Your task to perform on an android device: Search for "razer deathadder" on bestbuy.com, select the first entry, and add it to the cart. Image 0: 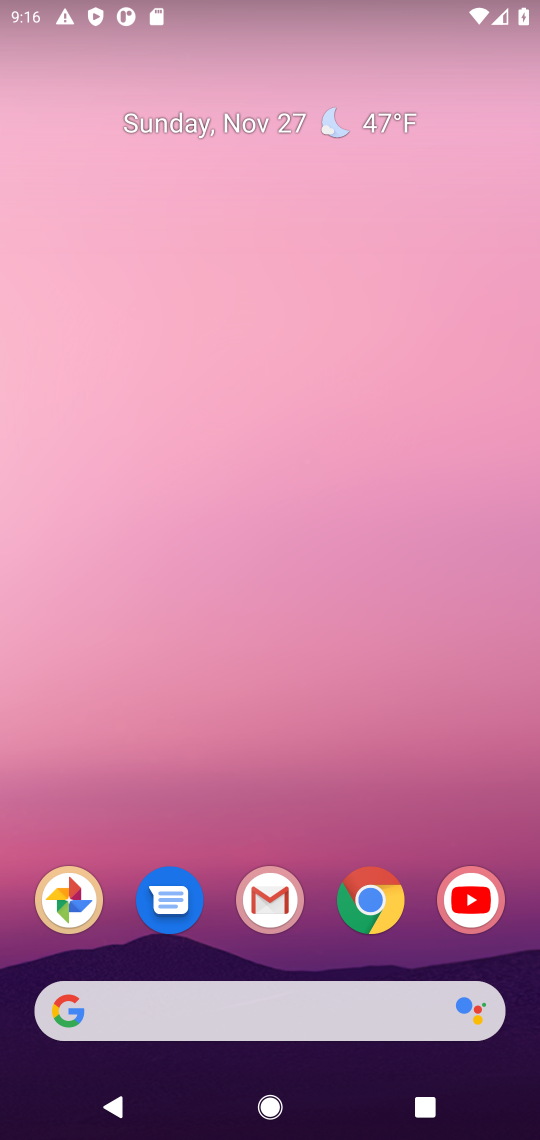
Step 0: click (378, 903)
Your task to perform on an android device: Search for "razer deathadder" on bestbuy.com, select the first entry, and add it to the cart. Image 1: 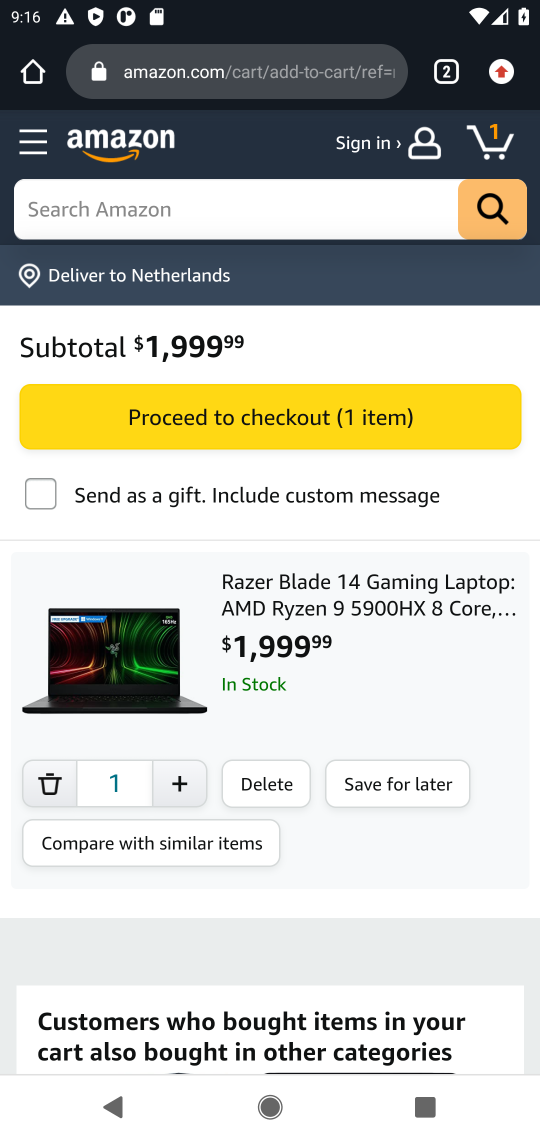
Step 1: click (242, 76)
Your task to perform on an android device: Search for "razer deathadder" on bestbuy.com, select the first entry, and add it to the cart. Image 2: 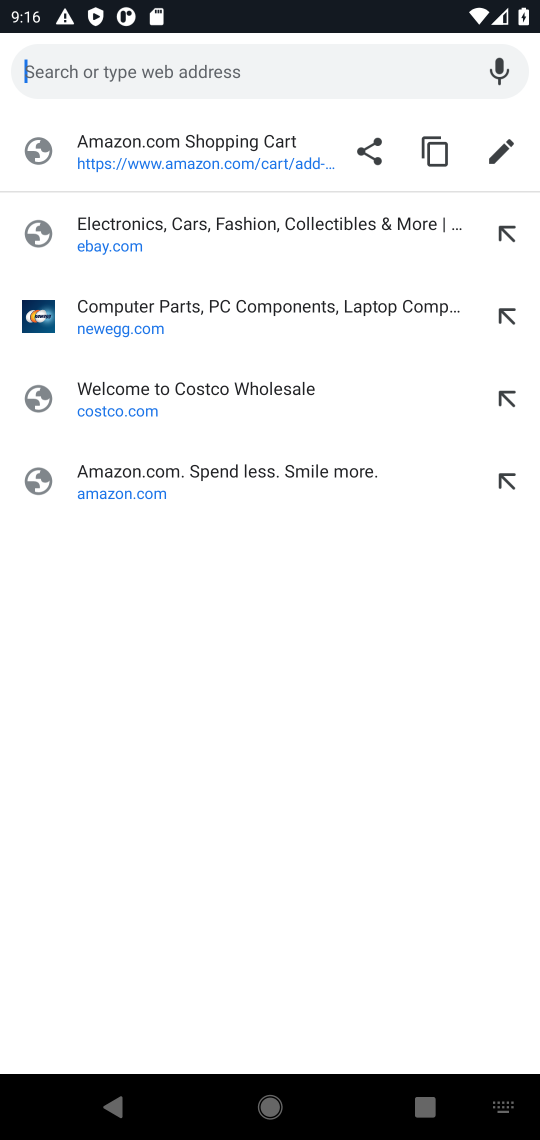
Step 2: type "bestbuy.com"
Your task to perform on an android device: Search for "razer deathadder" on bestbuy.com, select the first entry, and add it to the cart. Image 3: 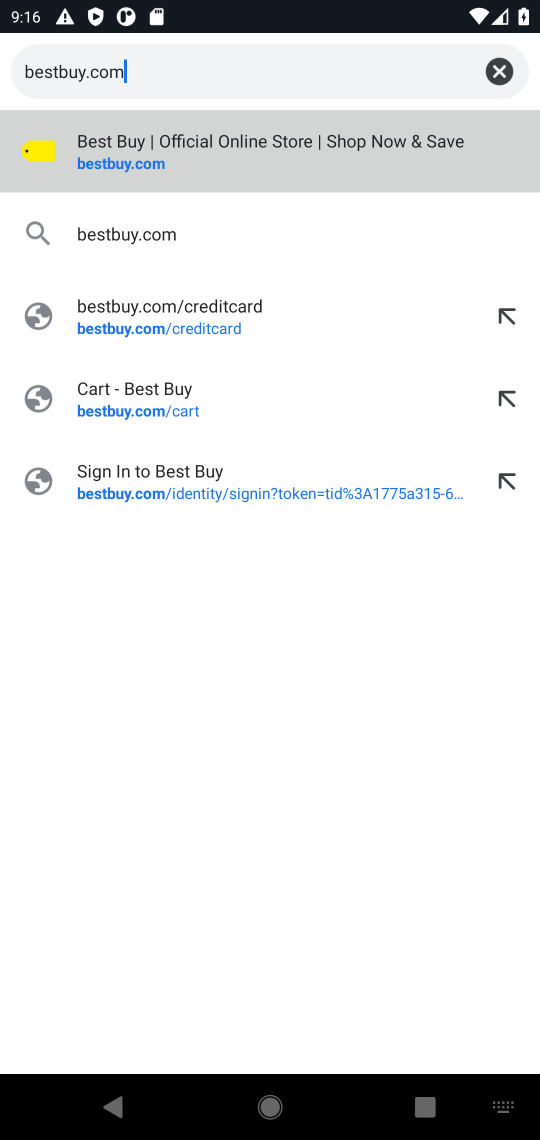
Step 3: click (109, 163)
Your task to perform on an android device: Search for "razer deathadder" on bestbuy.com, select the first entry, and add it to the cart. Image 4: 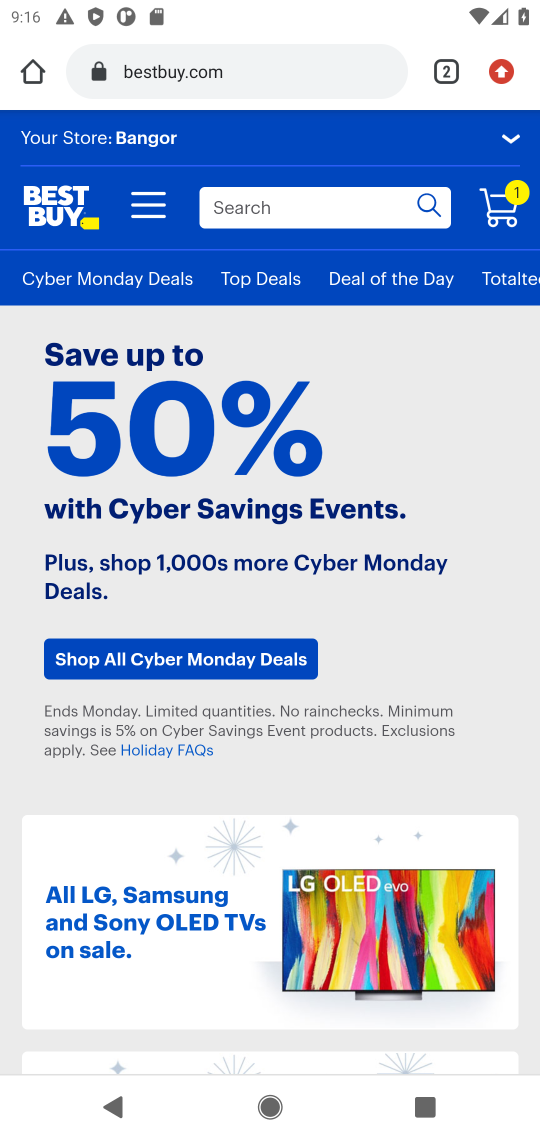
Step 4: click (295, 199)
Your task to perform on an android device: Search for "razer deathadder" on bestbuy.com, select the first entry, and add it to the cart. Image 5: 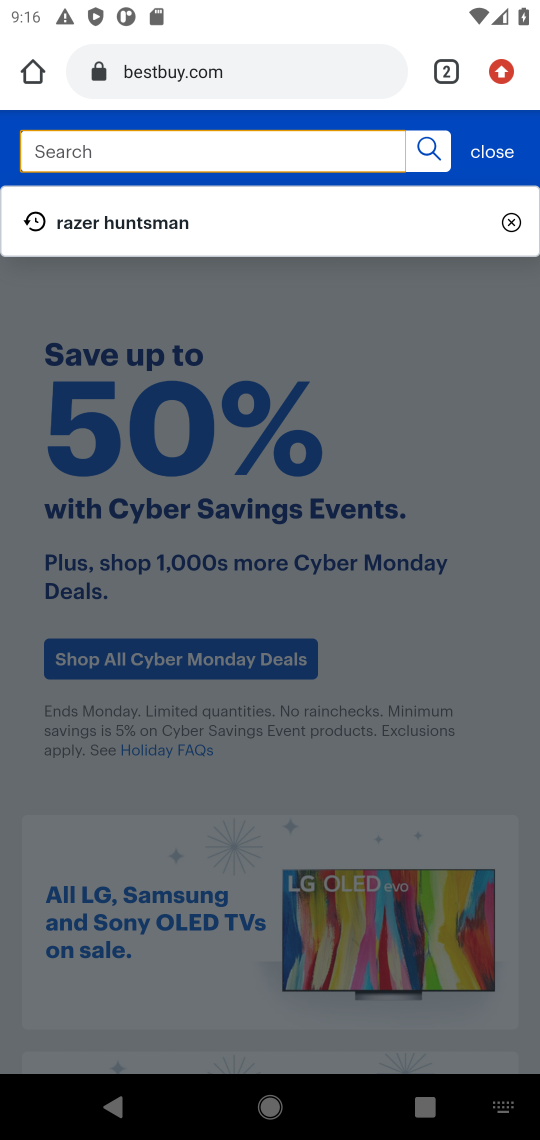
Step 5: type "razer deathadder"
Your task to perform on an android device: Search for "razer deathadder" on bestbuy.com, select the first entry, and add it to the cart. Image 6: 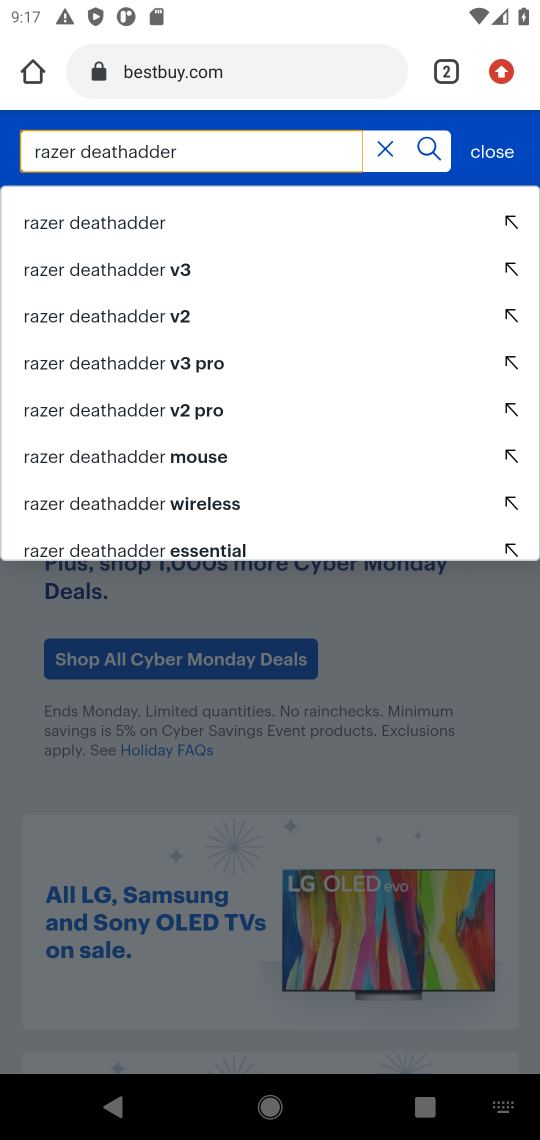
Step 6: click (86, 224)
Your task to perform on an android device: Search for "razer deathadder" on bestbuy.com, select the first entry, and add it to the cart. Image 7: 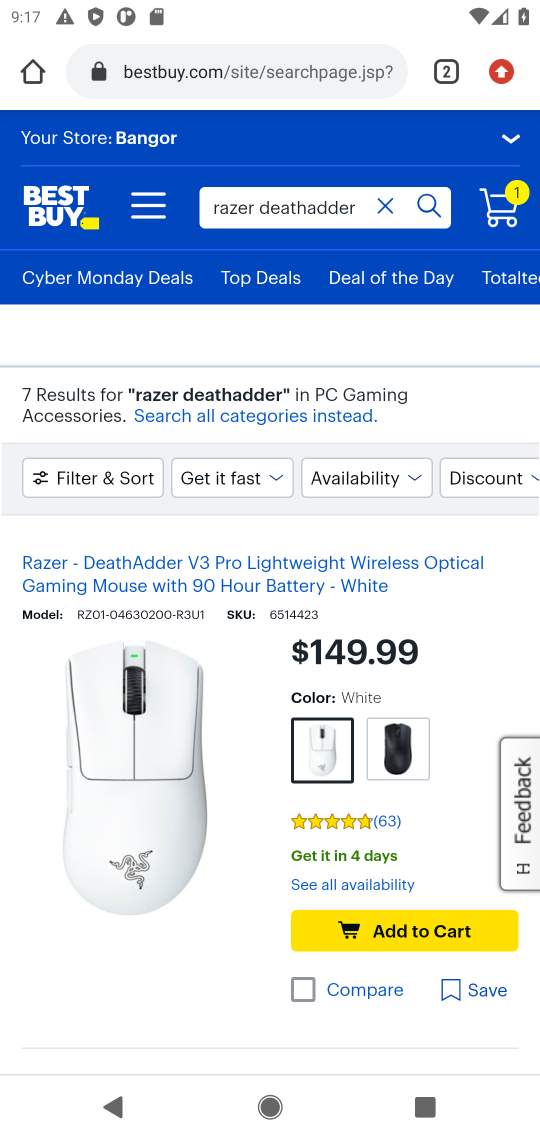
Step 7: click (399, 925)
Your task to perform on an android device: Search for "razer deathadder" on bestbuy.com, select the first entry, and add it to the cart. Image 8: 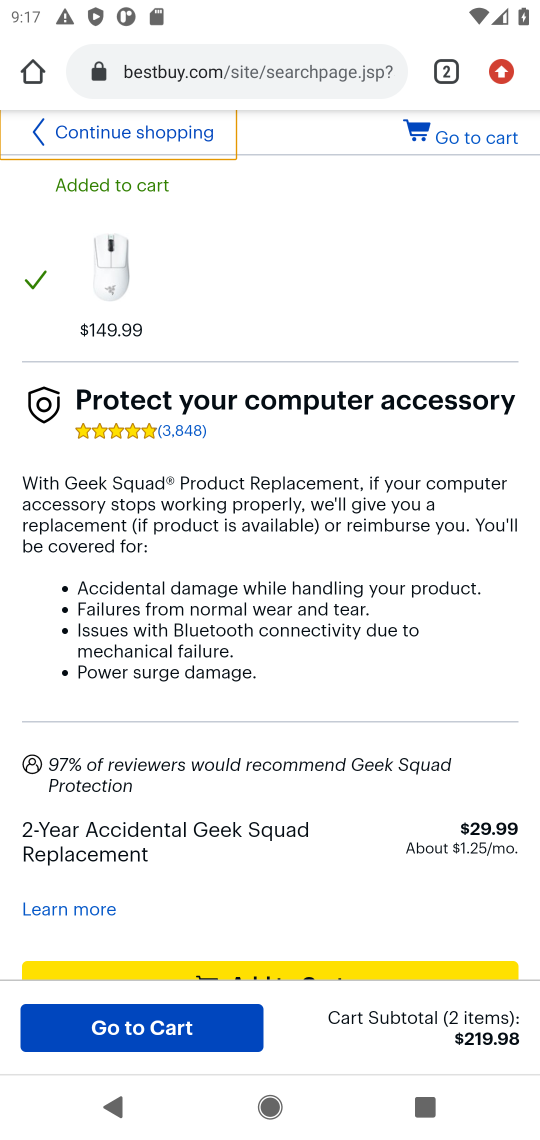
Step 8: task complete